Your task to perform on an android device: Open battery settings Image 0: 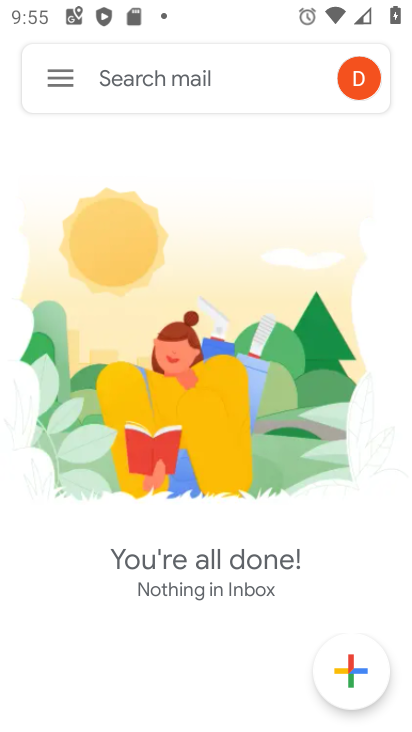
Step 0: press home button
Your task to perform on an android device: Open battery settings Image 1: 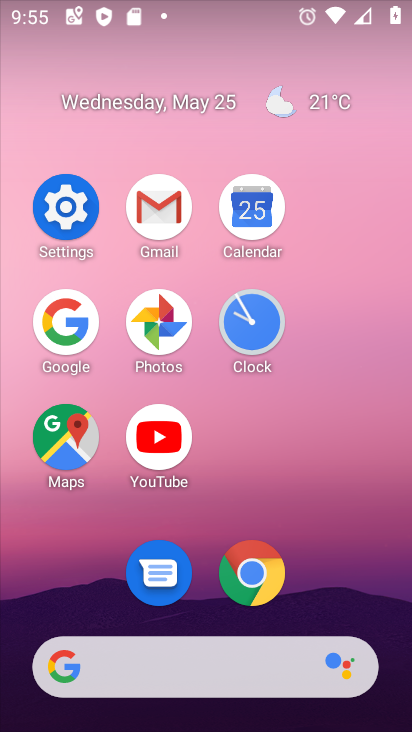
Step 1: click (73, 220)
Your task to perform on an android device: Open battery settings Image 2: 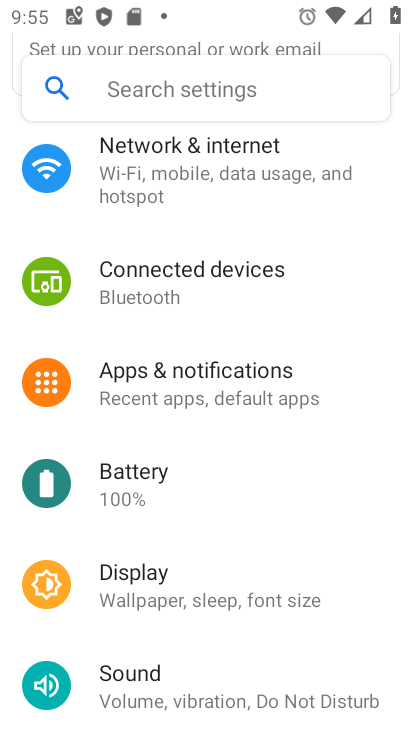
Step 2: click (173, 499)
Your task to perform on an android device: Open battery settings Image 3: 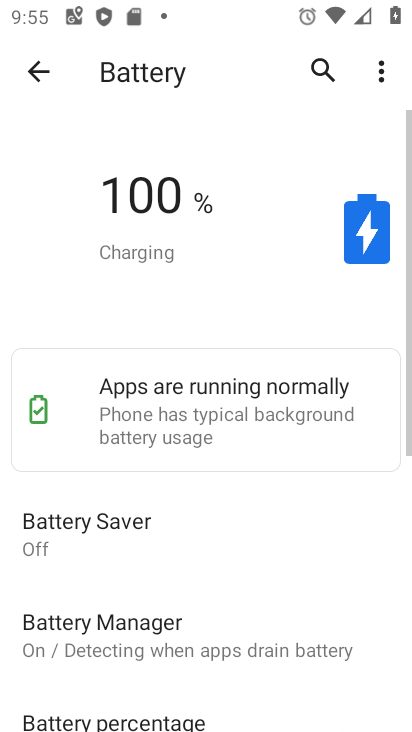
Step 3: task complete